Your task to perform on an android device: Is it going to rain this weekend? Image 0: 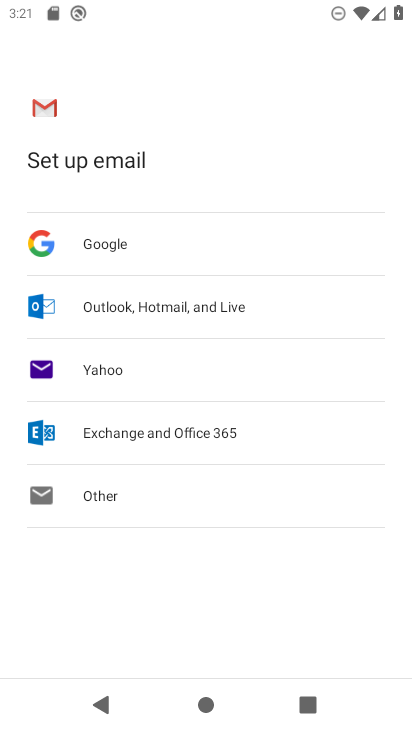
Step 0: press home button
Your task to perform on an android device: Is it going to rain this weekend? Image 1: 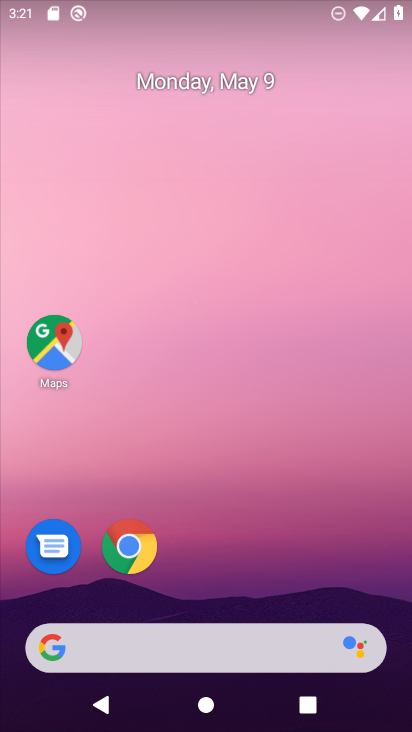
Step 1: click (219, 645)
Your task to perform on an android device: Is it going to rain this weekend? Image 2: 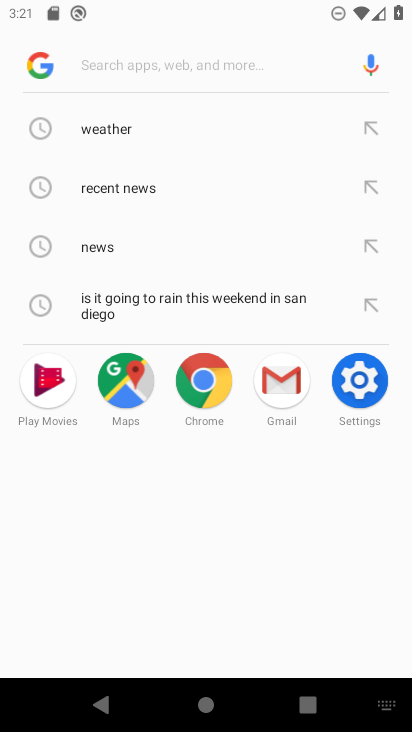
Step 2: type "Is it going to rain this weekend?"
Your task to perform on an android device: Is it going to rain this weekend? Image 3: 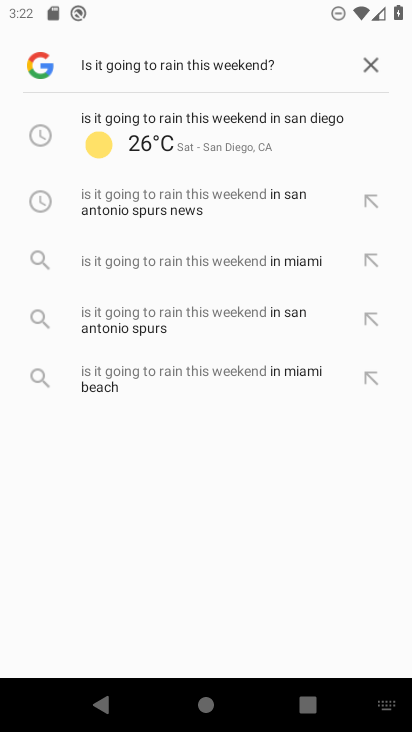
Step 3: click (305, 134)
Your task to perform on an android device: Is it going to rain this weekend? Image 4: 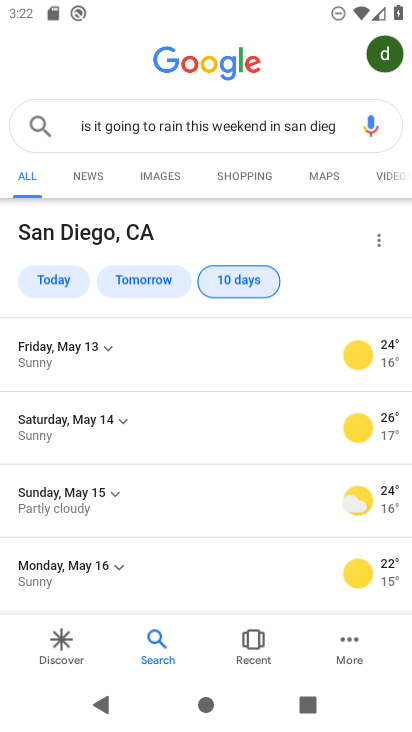
Step 4: task complete